Your task to perform on an android device: Open the calendar and show me this week's events? Image 0: 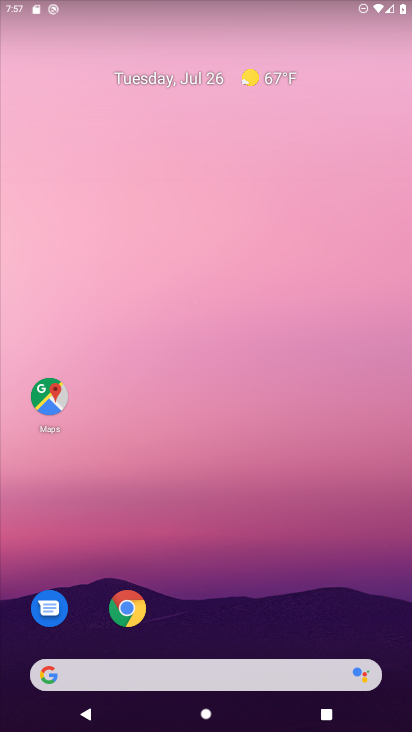
Step 0: drag from (234, 563) to (240, 1)
Your task to perform on an android device: Open the calendar and show me this week's events? Image 1: 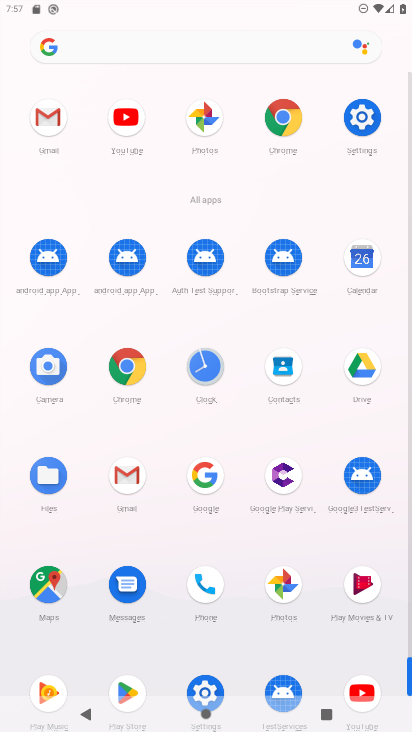
Step 1: click (366, 272)
Your task to perform on an android device: Open the calendar and show me this week's events? Image 2: 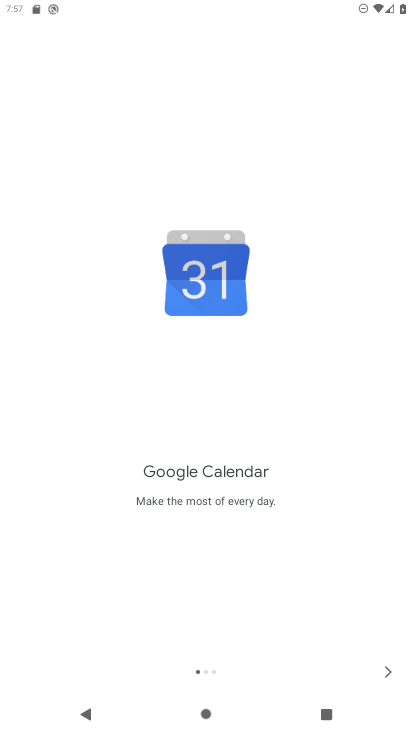
Step 2: click (382, 669)
Your task to perform on an android device: Open the calendar and show me this week's events? Image 3: 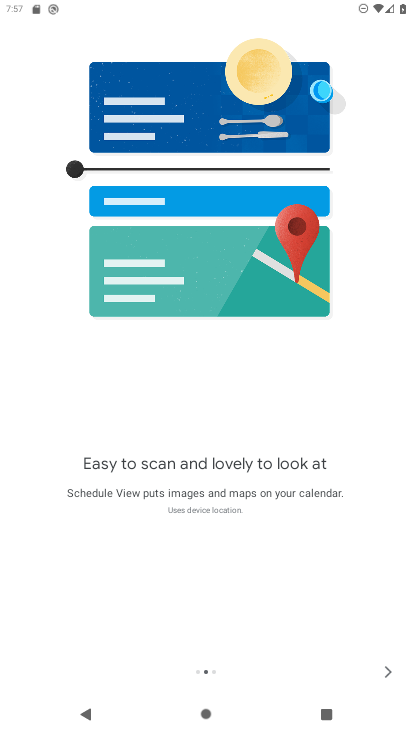
Step 3: click (383, 666)
Your task to perform on an android device: Open the calendar and show me this week's events? Image 4: 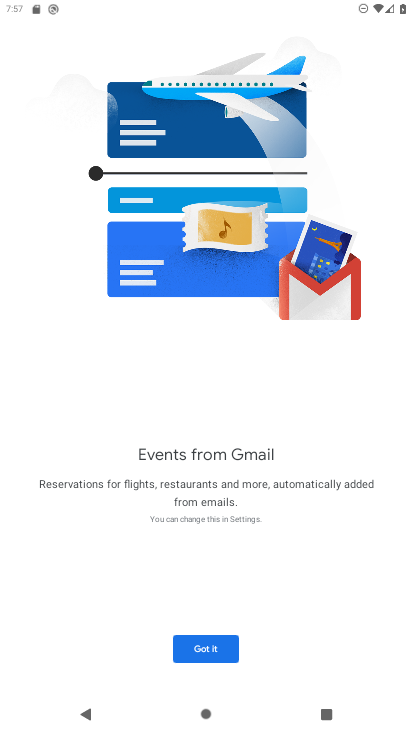
Step 4: click (203, 638)
Your task to perform on an android device: Open the calendar and show me this week's events? Image 5: 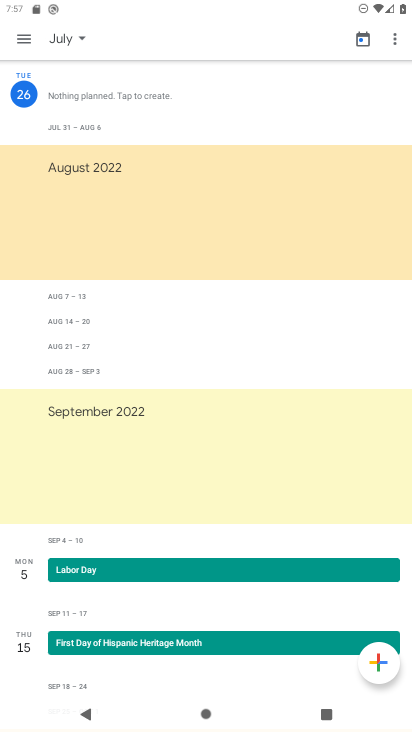
Step 5: click (23, 41)
Your task to perform on an android device: Open the calendar and show me this week's events? Image 6: 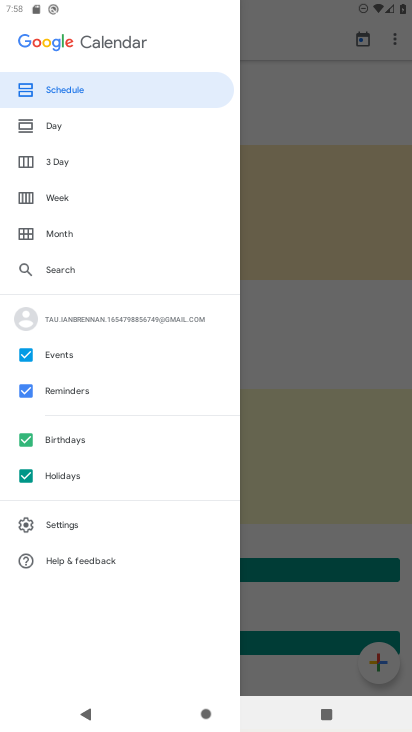
Step 6: click (79, 450)
Your task to perform on an android device: Open the calendar and show me this week's events? Image 7: 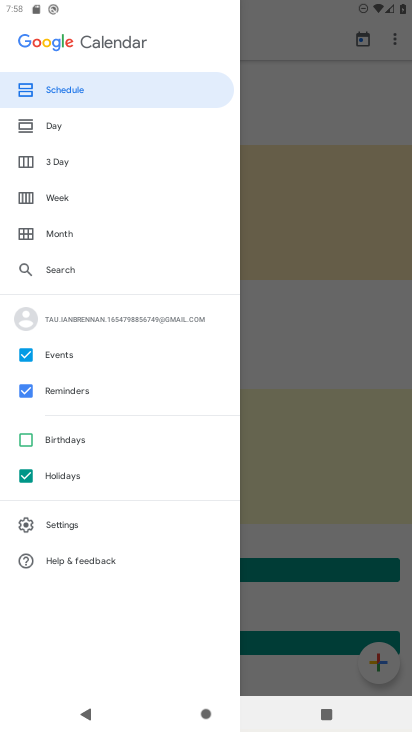
Step 7: click (76, 393)
Your task to perform on an android device: Open the calendar and show me this week's events? Image 8: 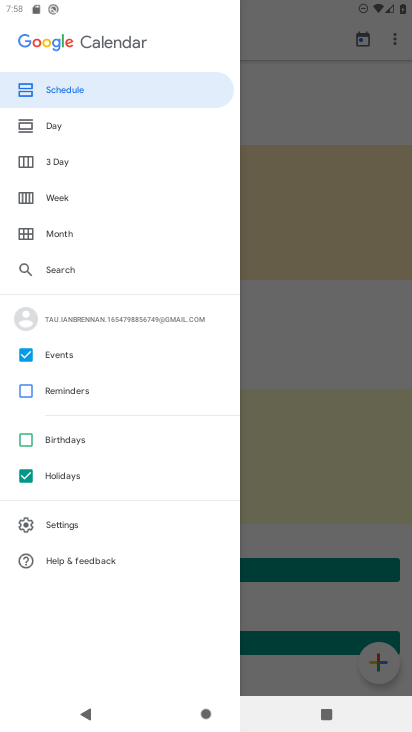
Step 8: click (65, 474)
Your task to perform on an android device: Open the calendar and show me this week's events? Image 9: 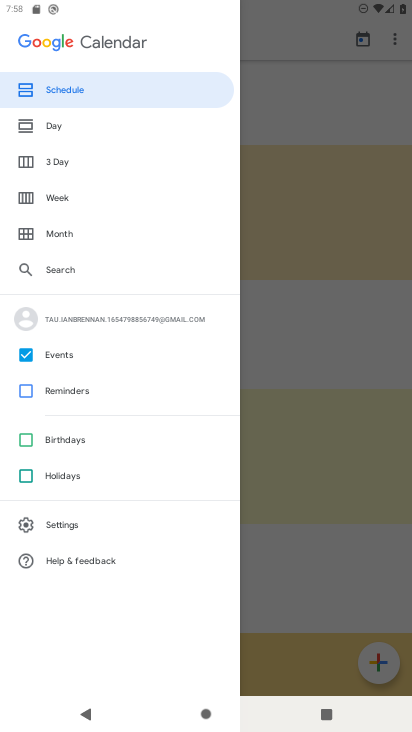
Step 9: click (54, 193)
Your task to perform on an android device: Open the calendar and show me this week's events? Image 10: 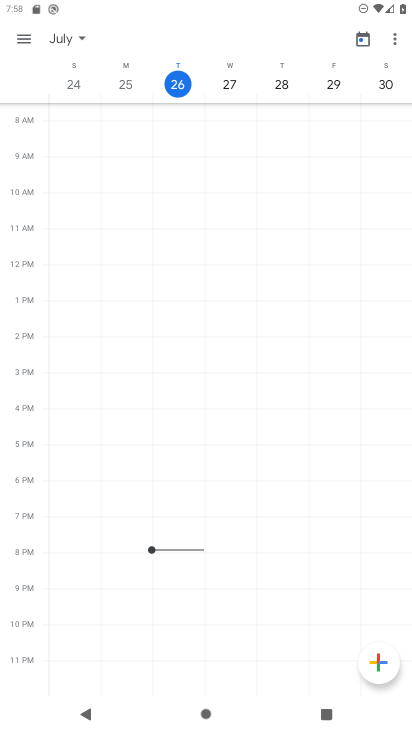
Step 10: task complete